Your task to perform on an android device: refresh tabs in the chrome app Image 0: 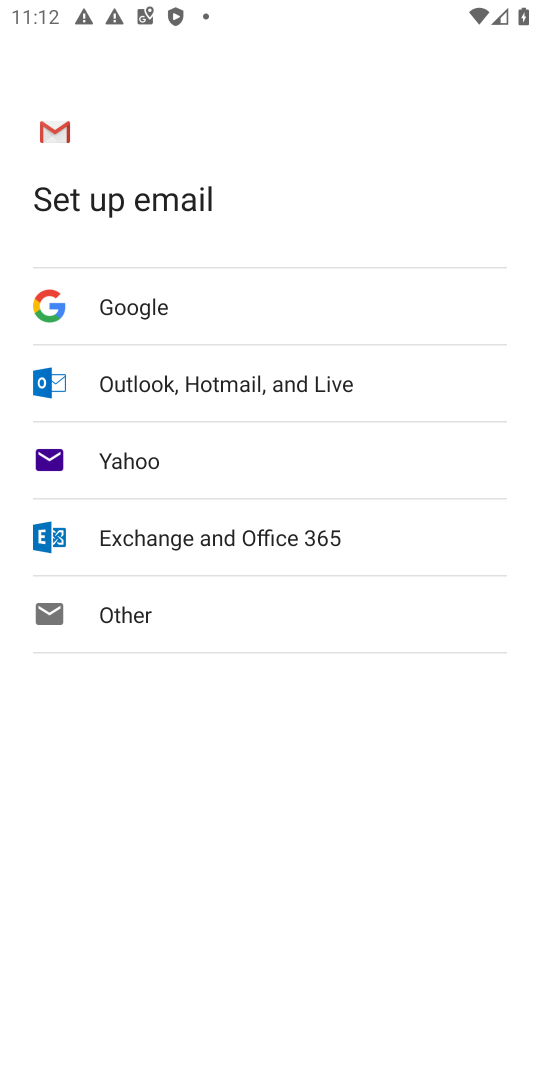
Step 0: press home button
Your task to perform on an android device: refresh tabs in the chrome app Image 1: 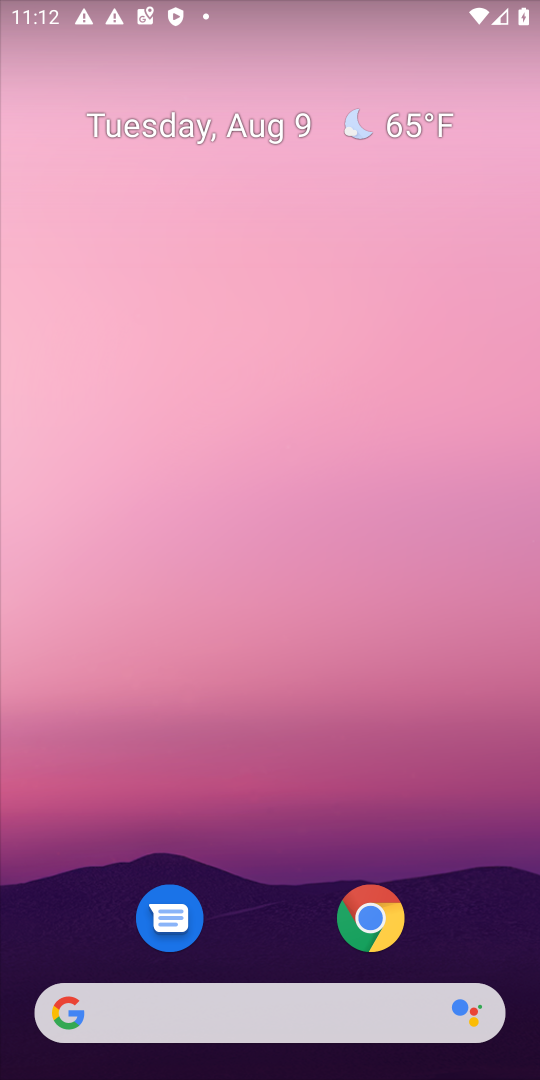
Step 1: drag from (259, 931) to (333, 213)
Your task to perform on an android device: refresh tabs in the chrome app Image 2: 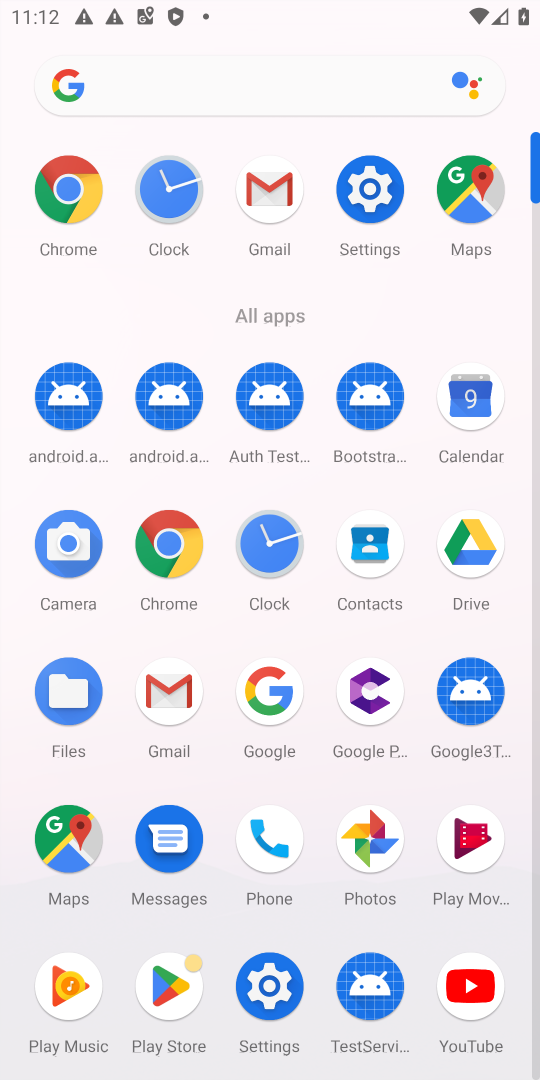
Step 2: click (166, 549)
Your task to perform on an android device: refresh tabs in the chrome app Image 3: 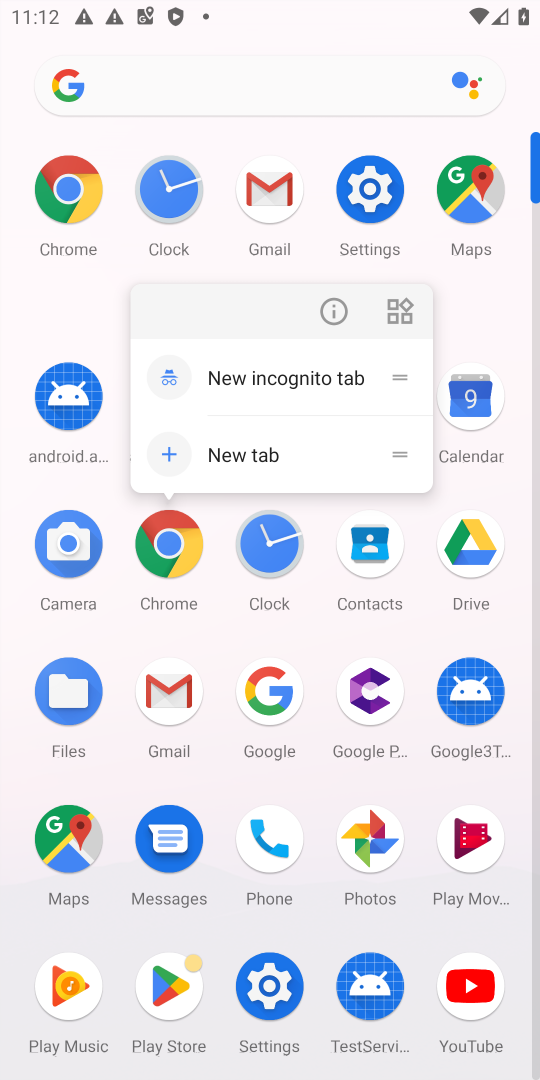
Step 3: click (165, 547)
Your task to perform on an android device: refresh tabs in the chrome app Image 4: 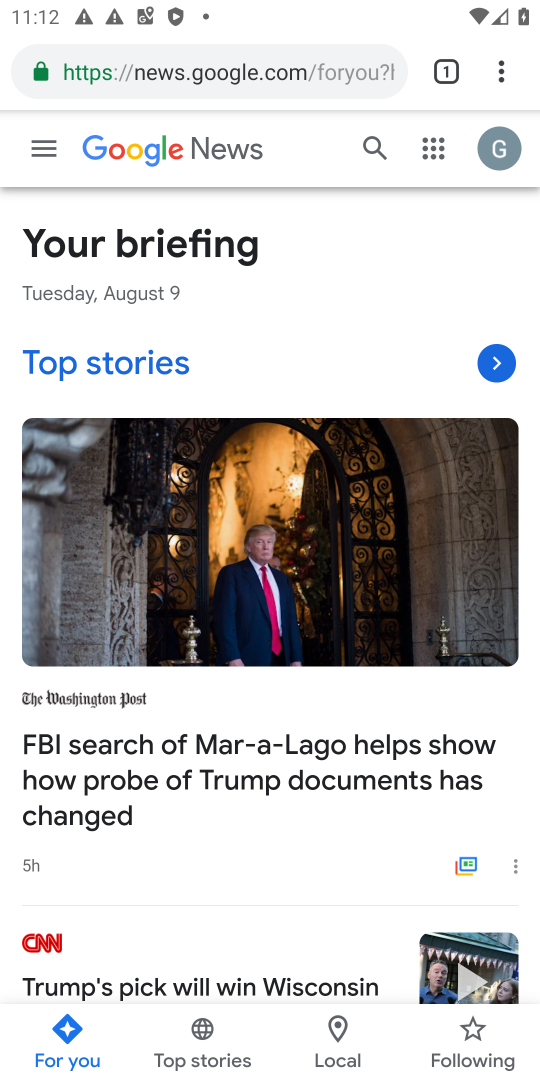
Step 4: click (504, 64)
Your task to perform on an android device: refresh tabs in the chrome app Image 5: 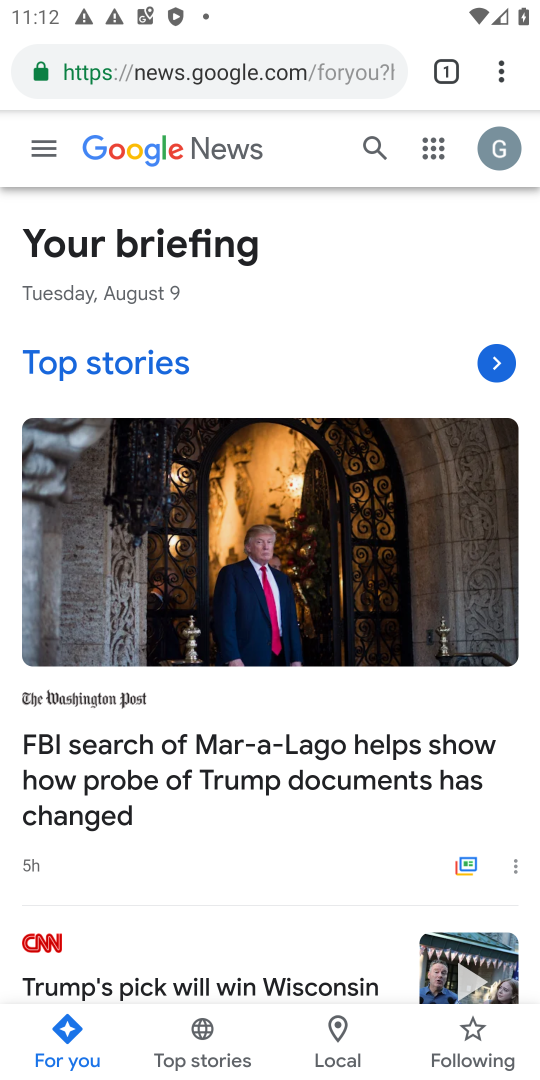
Step 5: task complete